Your task to perform on an android device: clear history in the chrome app Image 0: 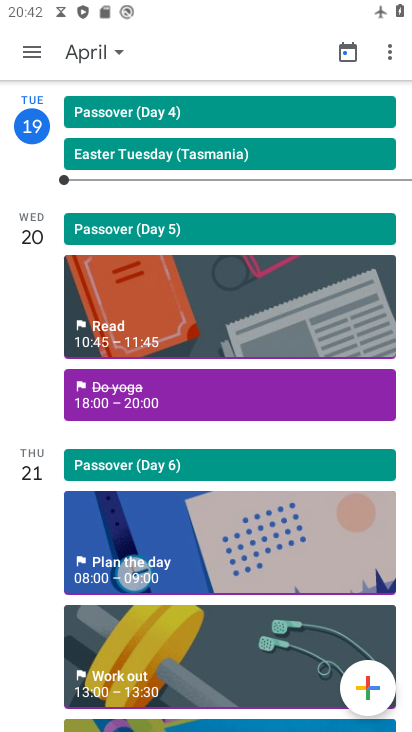
Step 0: click (32, 50)
Your task to perform on an android device: clear history in the chrome app Image 1: 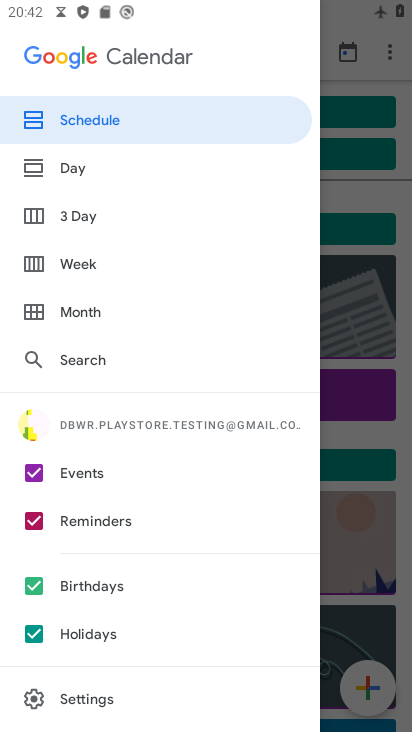
Step 1: press back button
Your task to perform on an android device: clear history in the chrome app Image 2: 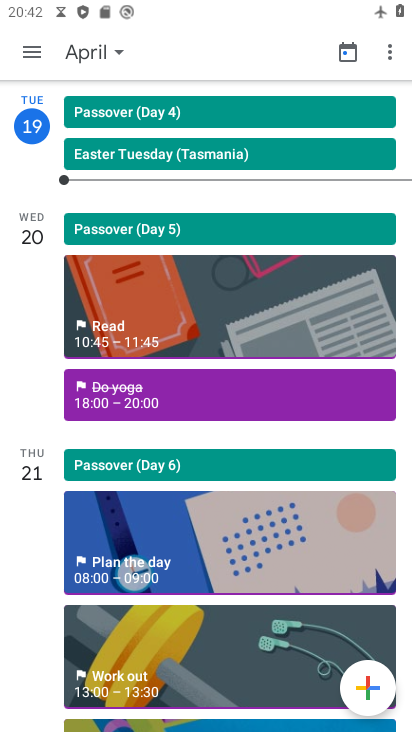
Step 2: press back button
Your task to perform on an android device: clear history in the chrome app Image 3: 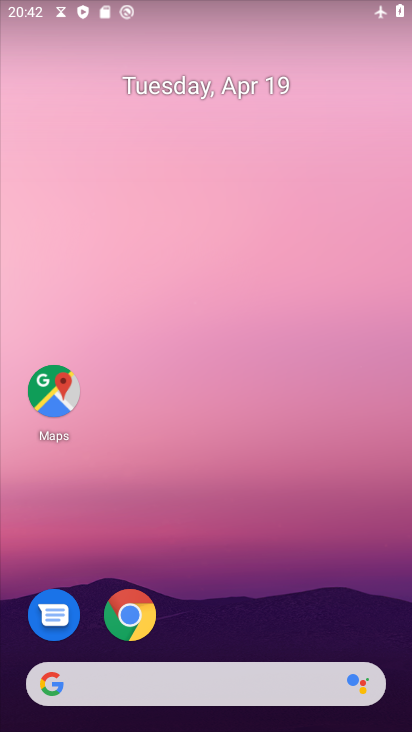
Step 3: drag from (368, 598) to (299, 0)
Your task to perform on an android device: clear history in the chrome app Image 4: 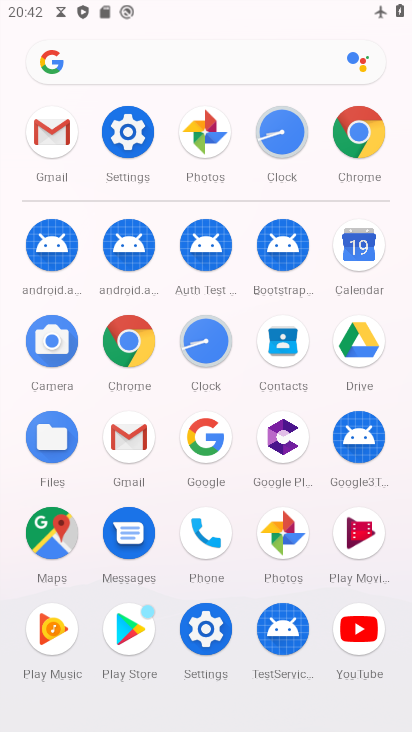
Step 4: drag from (1, 444) to (13, 278)
Your task to perform on an android device: clear history in the chrome app Image 5: 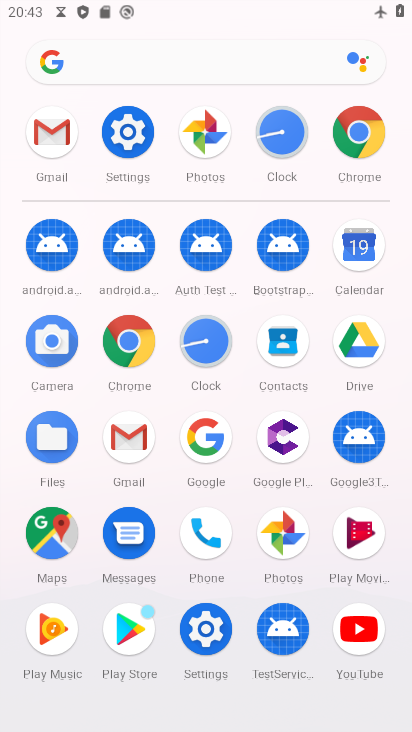
Step 5: click (129, 341)
Your task to perform on an android device: clear history in the chrome app Image 6: 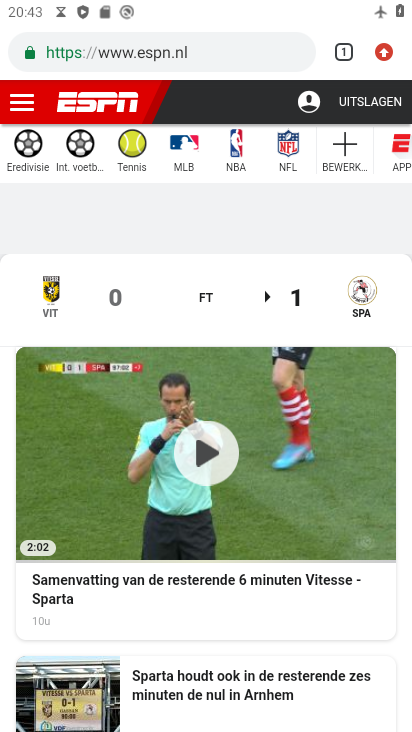
Step 6: drag from (385, 51) to (219, 343)
Your task to perform on an android device: clear history in the chrome app Image 7: 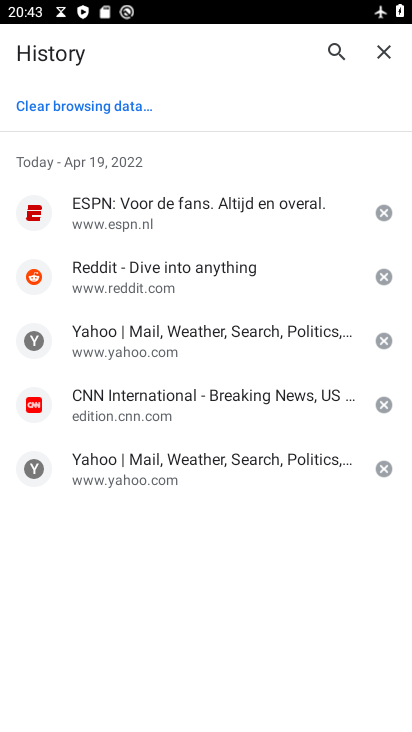
Step 7: click (112, 109)
Your task to perform on an android device: clear history in the chrome app Image 8: 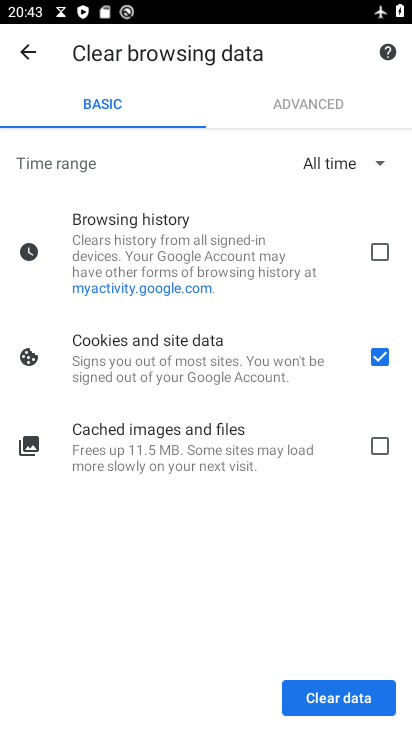
Step 8: click (379, 245)
Your task to perform on an android device: clear history in the chrome app Image 9: 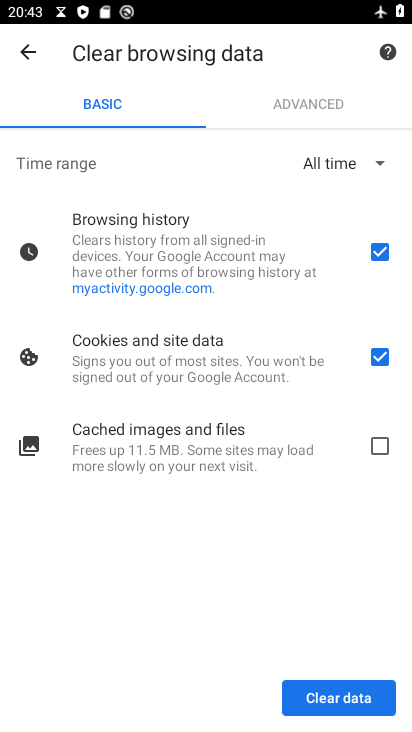
Step 9: click (379, 365)
Your task to perform on an android device: clear history in the chrome app Image 10: 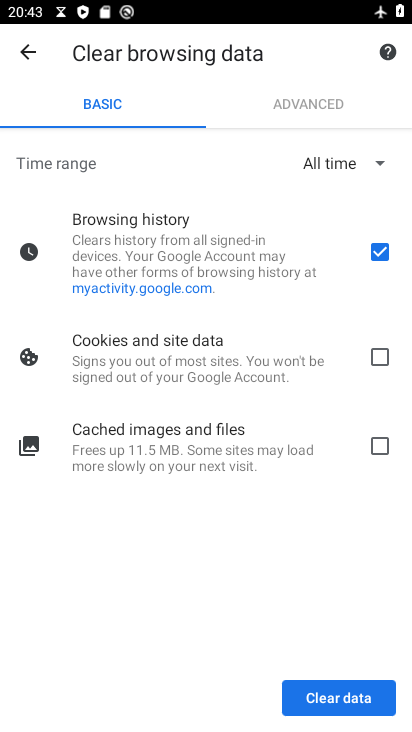
Step 10: click (332, 692)
Your task to perform on an android device: clear history in the chrome app Image 11: 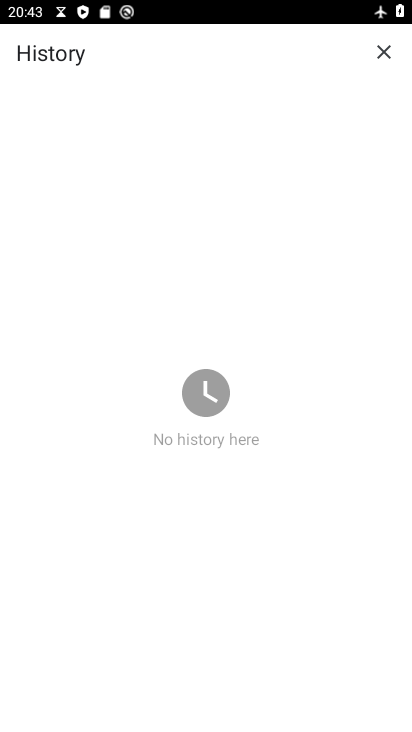
Step 11: task complete